Your task to perform on an android device: What's the weather going to be tomorrow? Image 0: 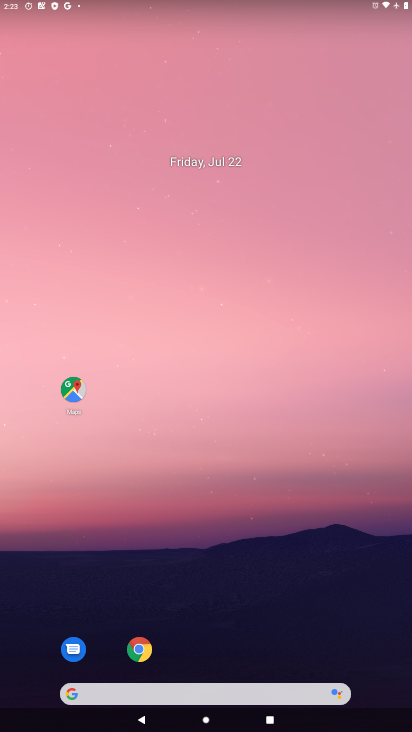
Step 0: drag from (322, 607) to (239, 56)
Your task to perform on an android device: What's the weather going to be tomorrow? Image 1: 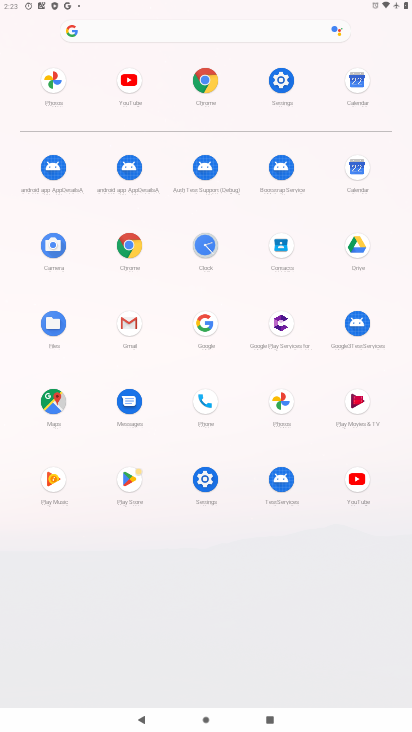
Step 1: click (200, 76)
Your task to perform on an android device: What's the weather going to be tomorrow? Image 2: 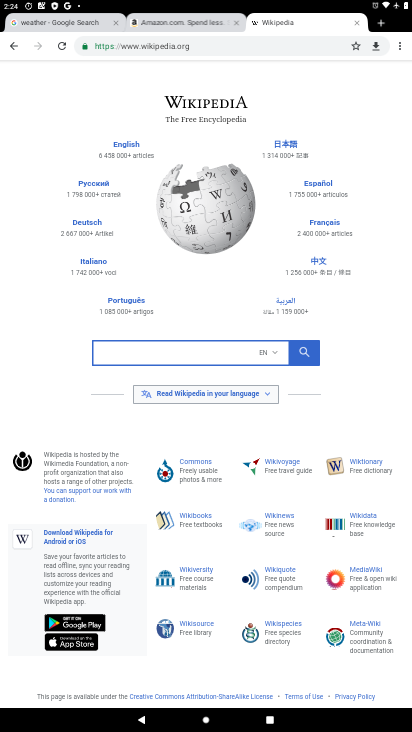
Step 2: click (242, 47)
Your task to perform on an android device: What's the weather going to be tomorrow? Image 3: 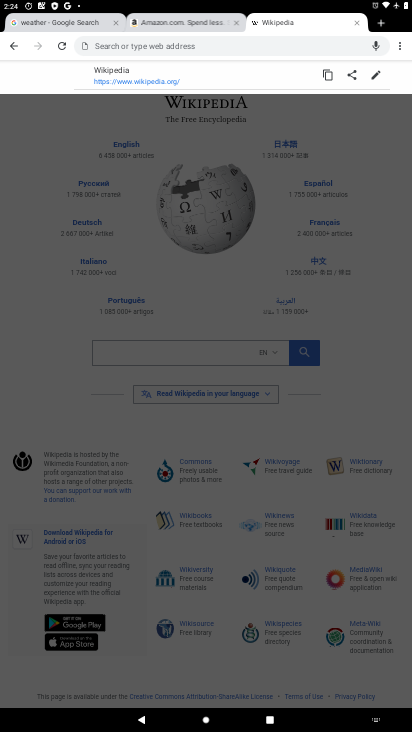
Step 3: type "weather"
Your task to perform on an android device: What's the weather going to be tomorrow? Image 4: 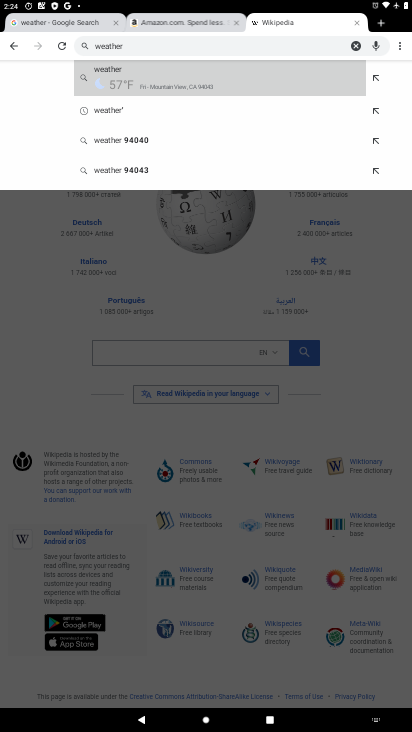
Step 4: click (197, 87)
Your task to perform on an android device: What's the weather going to be tomorrow? Image 5: 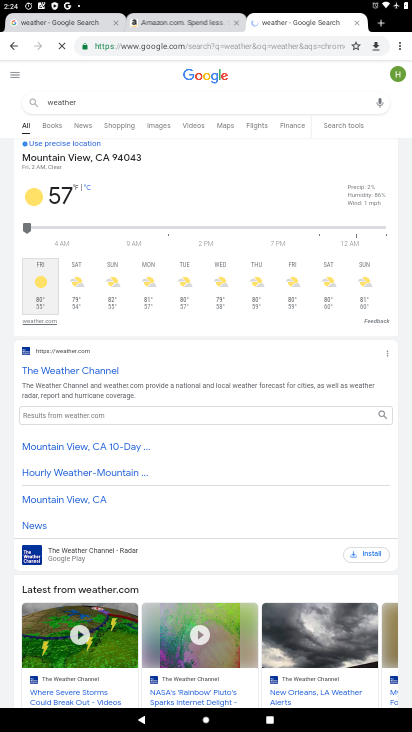
Step 5: click (76, 273)
Your task to perform on an android device: What's the weather going to be tomorrow? Image 6: 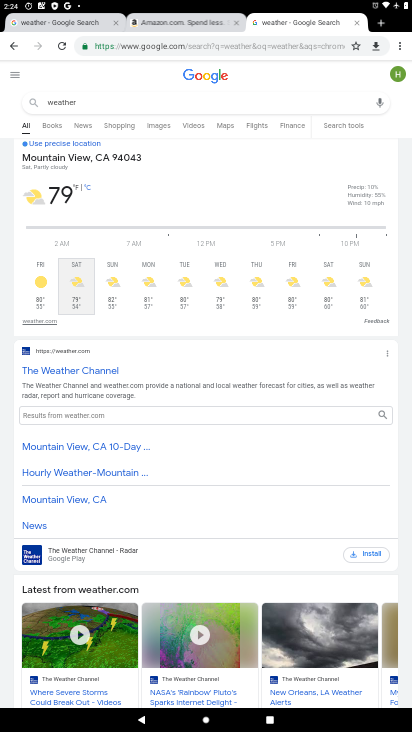
Step 6: task complete